Your task to perform on an android device: turn on showing notifications on the lock screen Image 0: 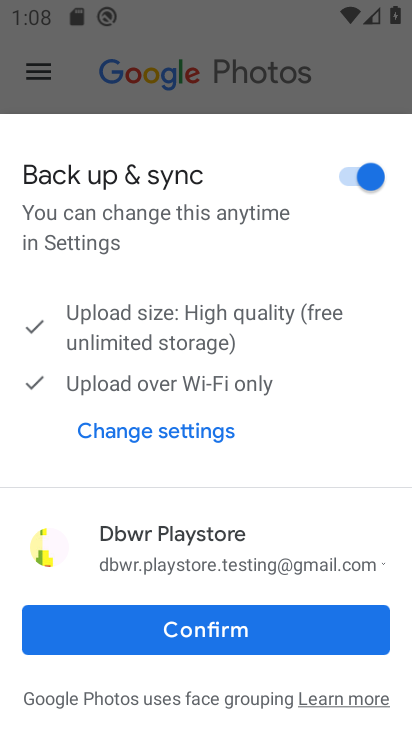
Step 0: press home button
Your task to perform on an android device: turn on showing notifications on the lock screen Image 1: 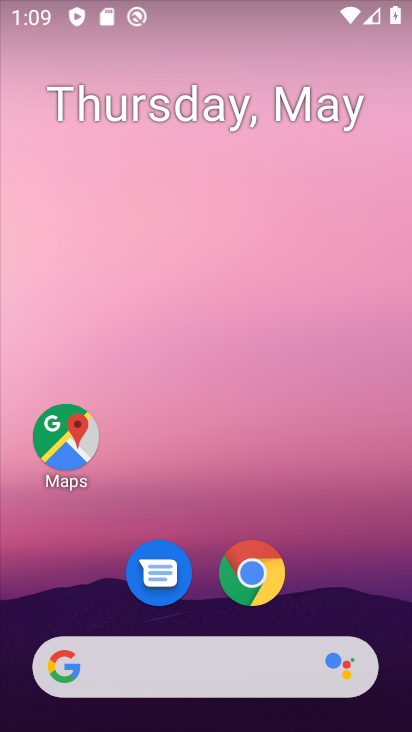
Step 1: drag from (389, 499) to (394, 230)
Your task to perform on an android device: turn on showing notifications on the lock screen Image 2: 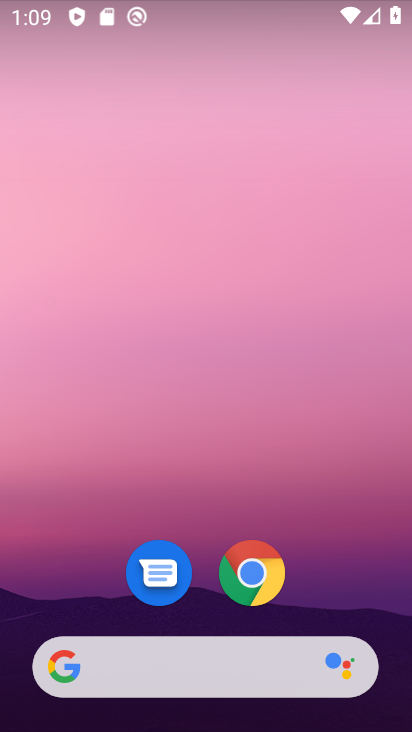
Step 2: drag from (395, 680) to (398, 327)
Your task to perform on an android device: turn on showing notifications on the lock screen Image 3: 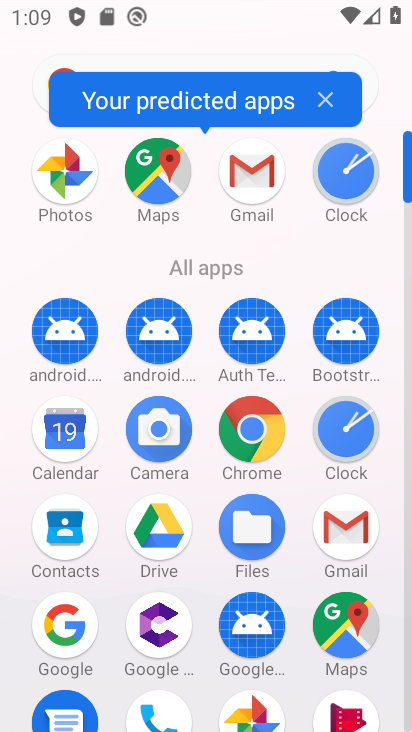
Step 3: drag from (408, 135) to (404, 72)
Your task to perform on an android device: turn on showing notifications on the lock screen Image 4: 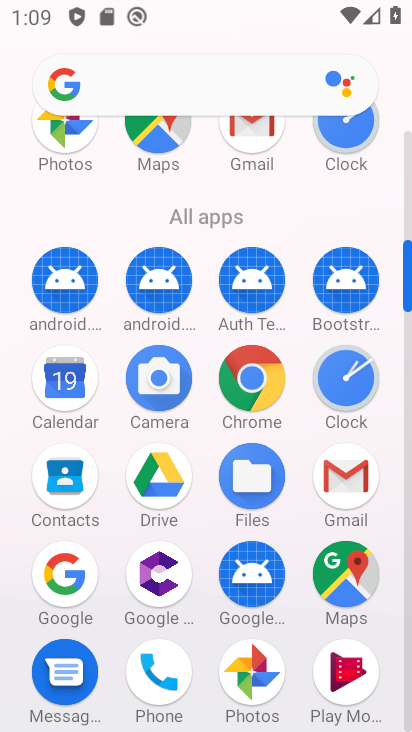
Step 4: drag from (409, 245) to (410, 134)
Your task to perform on an android device: turn on showing notifications on the lock screen Image 5: 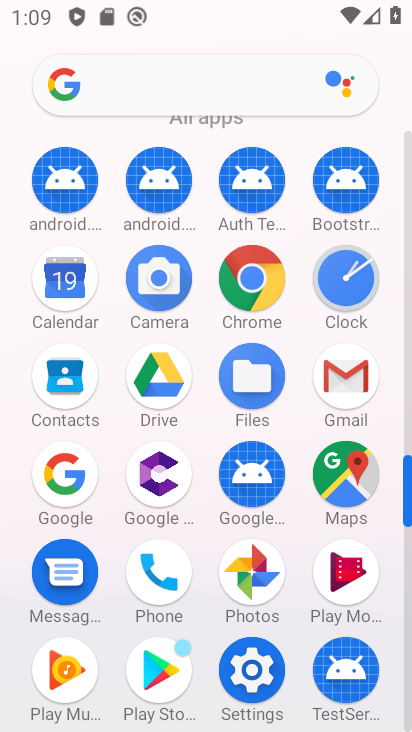
Step 5: click (247, 710)
Your task to perform on an android device: turn on showing notifications on the lock screen Image 6: 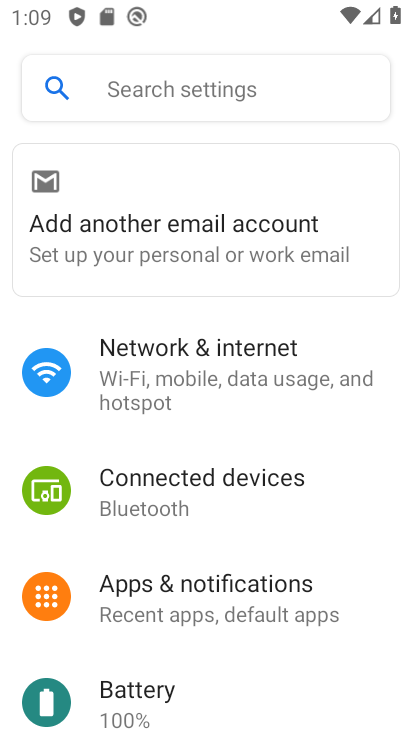
Step 6: click (159, 600)
Your task to perform on an android device: turn on showing notifications on the lock screen Image 7: 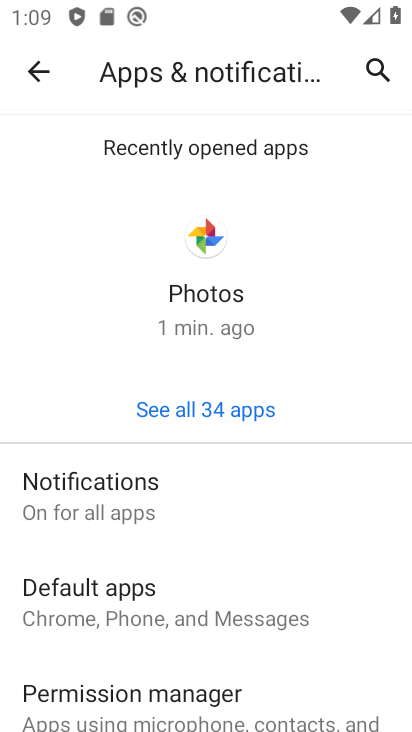
Step 7: click (95, 497)
Your task to perform on an android device: turn on showing notifications on the lock screen Image 8: 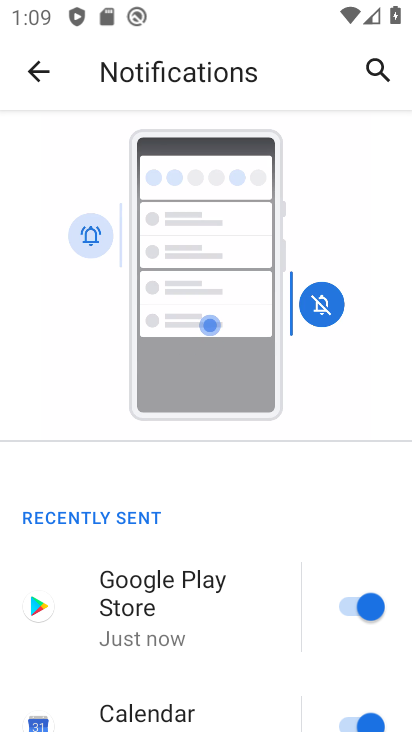
Step 8: drag from (267, 688) to (246, 322)
Your task to perform on an android device: turn on showing notifications on the lock screen Image 9: 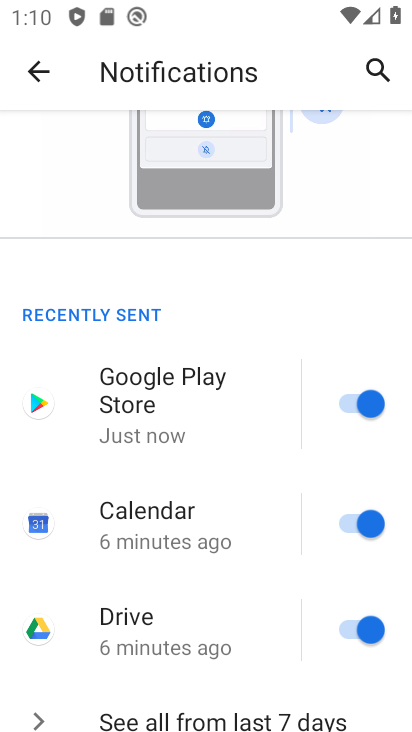
Step 9: drag from (249, 679) to (223, 444)
Your task to perform on an android device: turn on showing notifications on the lock screen Image 10: 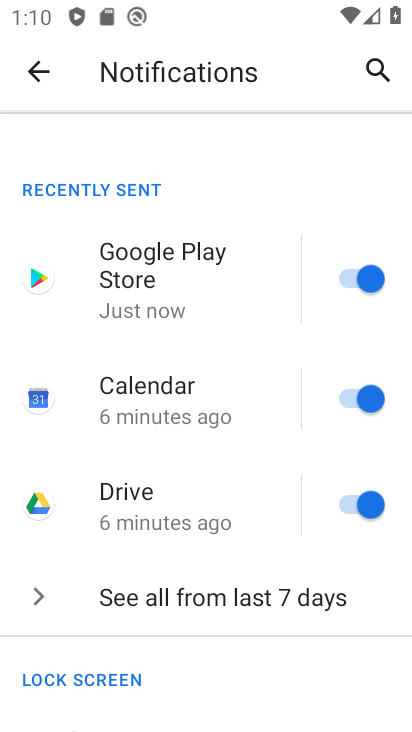
Step 10: drag from (256, 659) to (242, 487)
Your task to perform on an android device: turn on showing notifications on the lock screen Image 11: 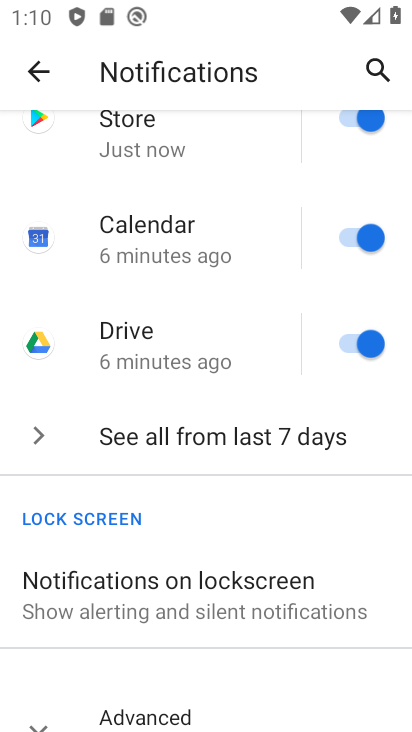
Step 11: click (140, 640)
Your task to perform on an android device: turn on showing notifications on the lock screen Image 12: 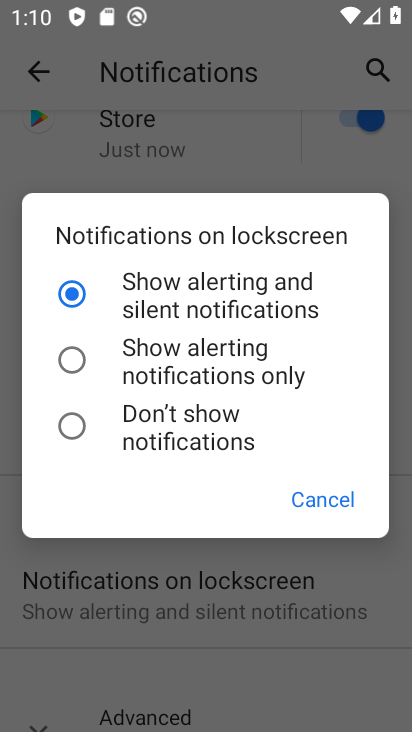
Step 12: task complete